Your task to perform on an android device: Search for seafood restaurants on Google Maps Image 0: 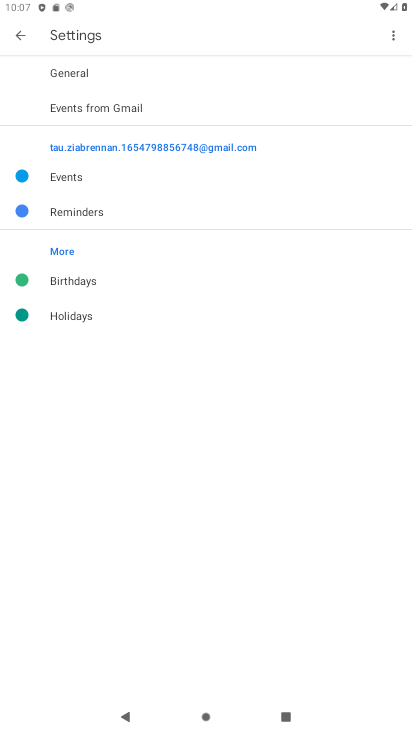
Step 0: press home button
Your task to perform on an android device: Search for seafood restaurants on Google Maps Image 1: 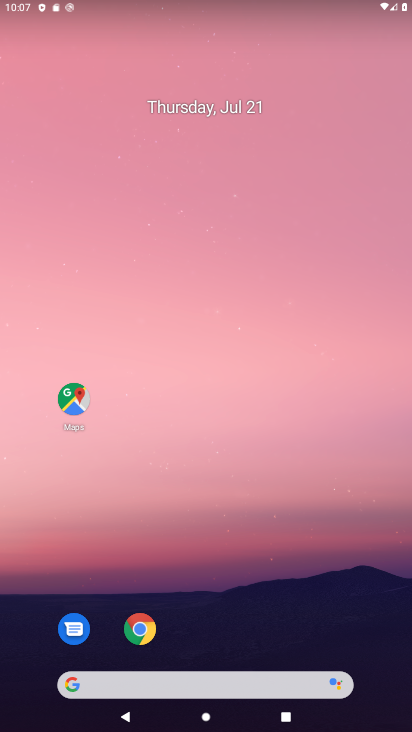
Step 1: click (71, 397)
Your task to perform on an android device: Search for seafood restaurants on Google Maps Image 2: 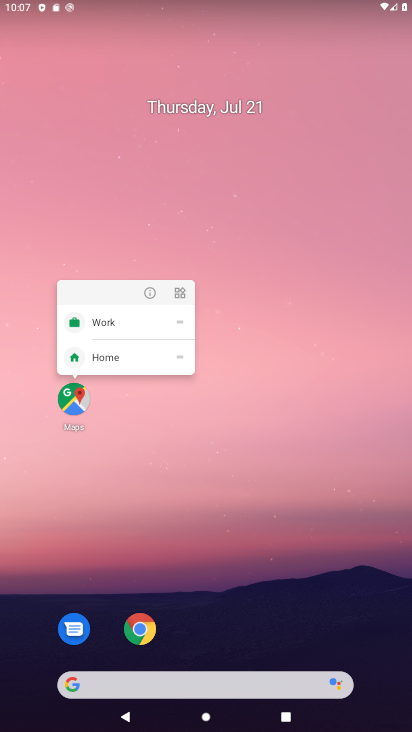
Step 2: click (70, 390)
Your task to perform on an android device: Search for seafood restaurants on Google Maps Image 3: 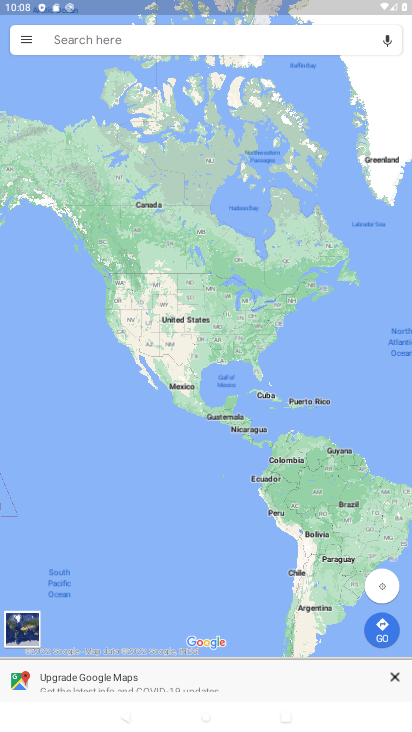
Step 3: click (194, 42)
Your task to perform on an android device: Search for seafood restaurants on Google Maps Image 4: 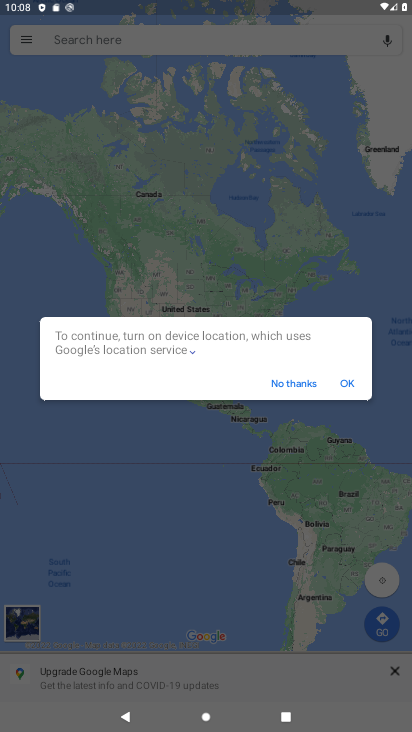
Step 4: click (344, 380)
Your task to perform on an android device: Search for seafood restaurants on Google Maps Image 5: 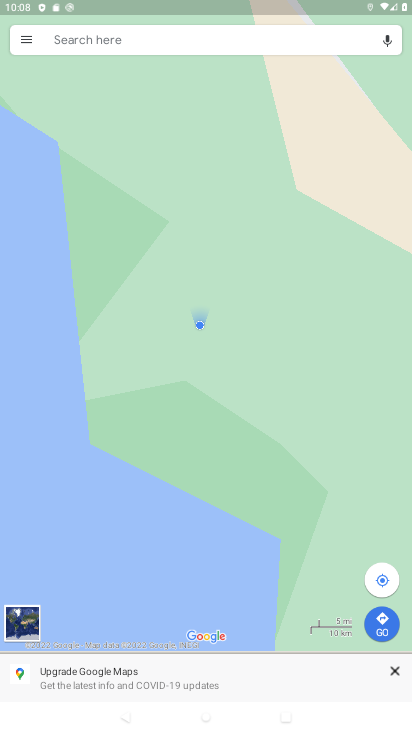
Step 5: click (102, 36)
Your task to perform on an android device: Search for seafood restaurants on Google Maps Image 6: 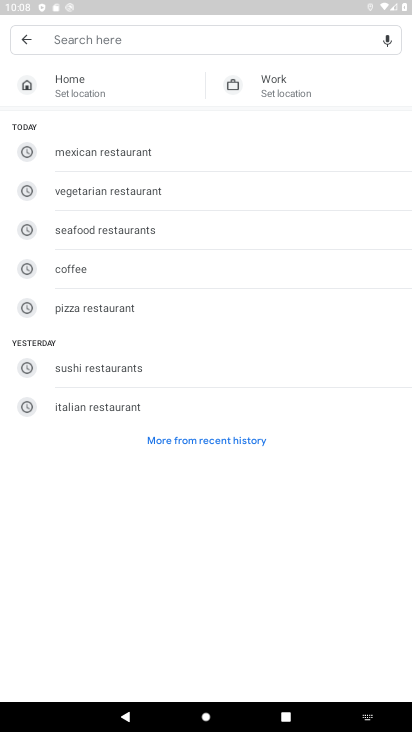
Step 6: click (112, 228)
Your task to perform on an android device: Search for seafood restaurants on Google Maps Image 7: 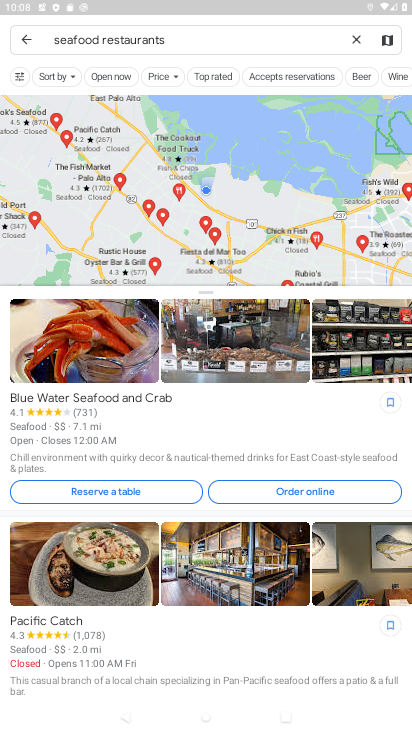
Step 7: task complete